Your task to perform on an android device: add a contact Image 0: 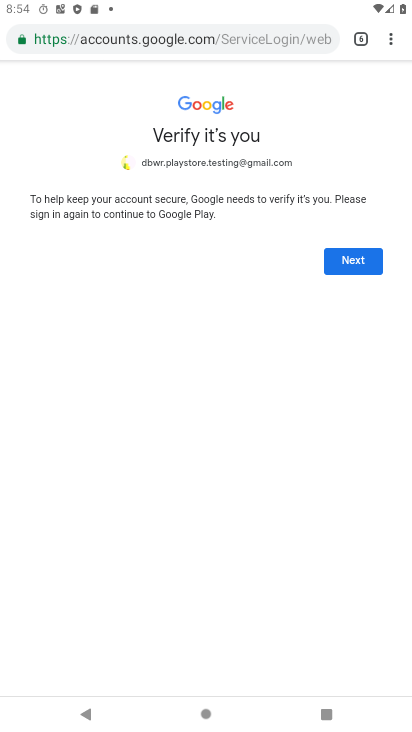
Step 0: press home button
Your task to perform on an android device: add a contact Image 1: 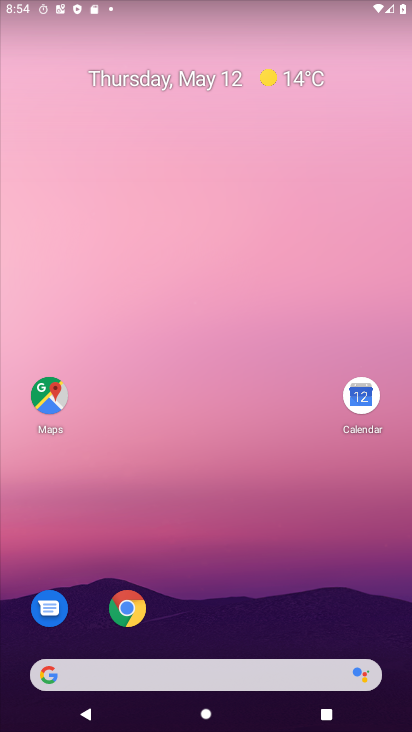
Step 1: drag from (217, 606) to (243, 228)
Your task to perform on an android device: add a contact Image 2: 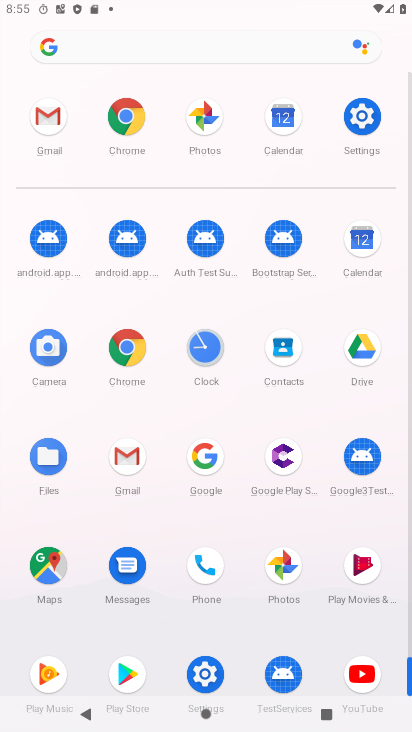
Step 2: click (286, 346)
Your task to perform on an android device: add a contact Image 3: 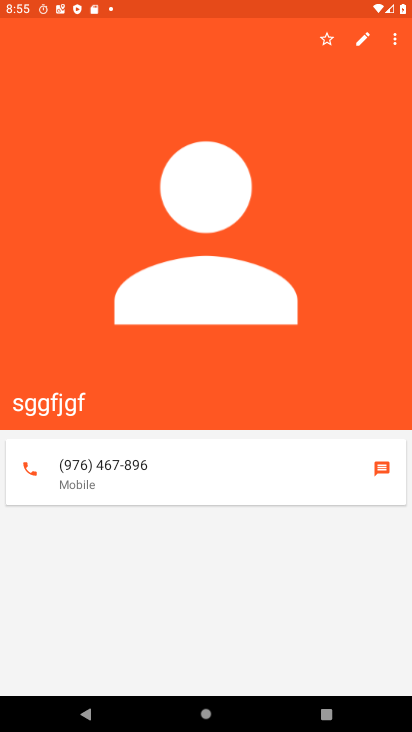
Step 3: press back button
Your task to perform on an android device: add a contact Image 4: 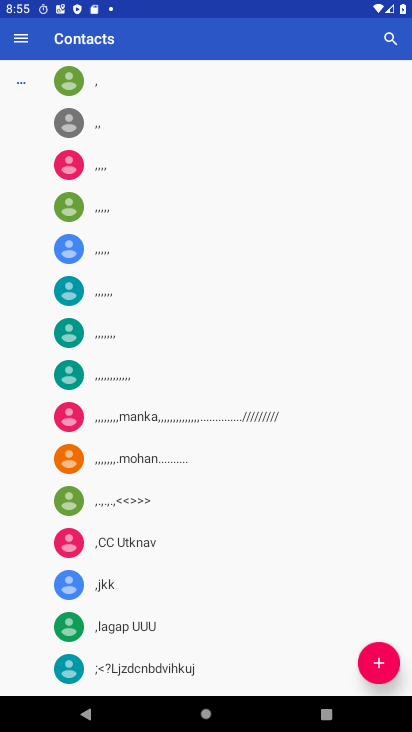
Step 4: click (369, 671)
Your task to perform on an android device: add a contact Image 5: 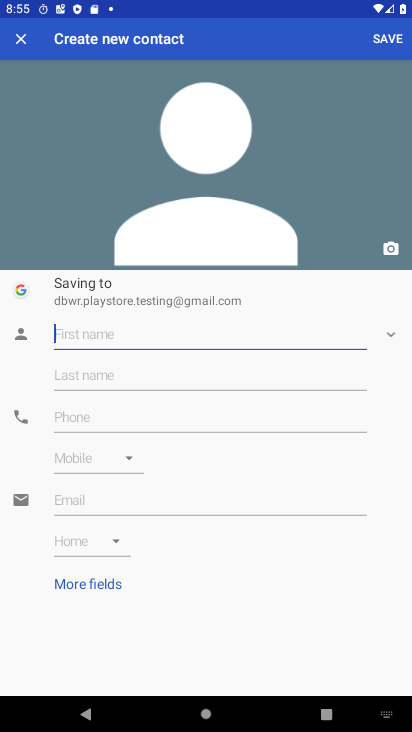
Step 5: click (190, 323)
Your task to perform on an android device: add a contact Image 6: 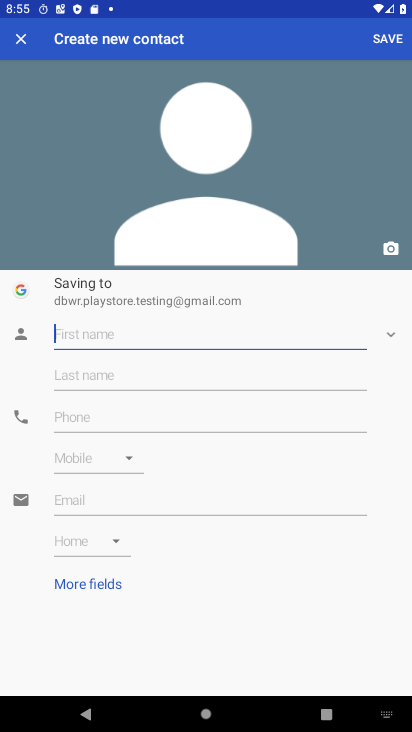
Step 6: type "syfhihkyibgyrfvhgj"
Your task to perform on an android device: add a contact Image 7: 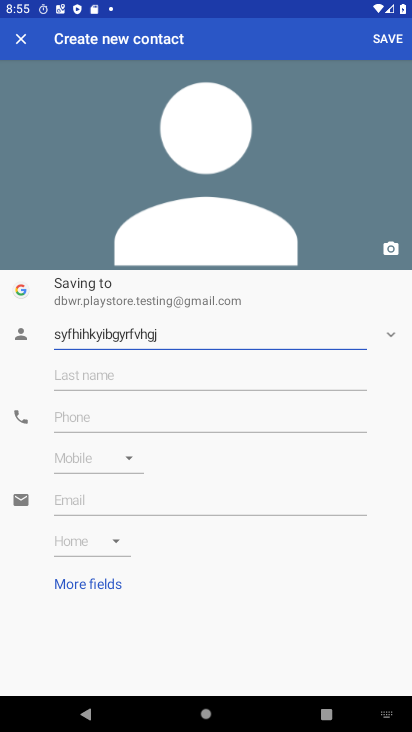
Step 7: click (202, 394)
Your task to perform on an android device: add a contact Image 8: 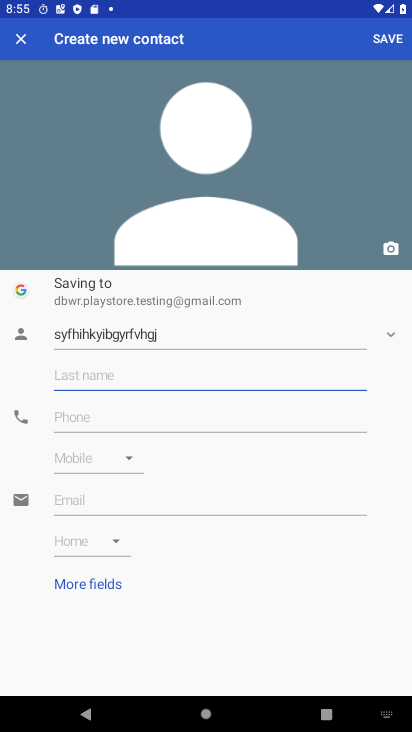
Step 8: click (196, 415)
Your task to perform on an android device: add a contact Image 9: 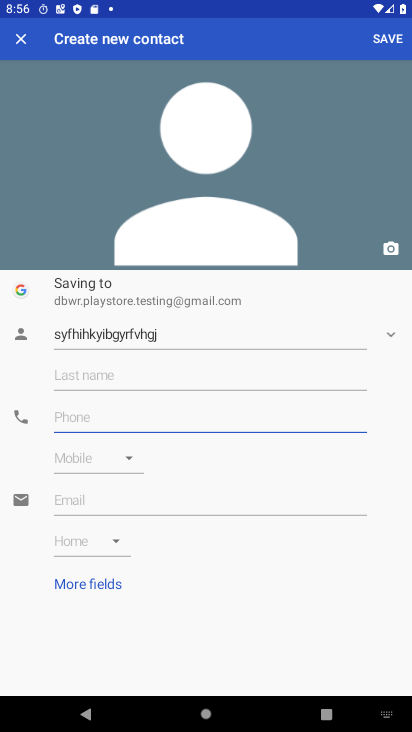
Step 9: type "9087766553"
Your task to perform on an android device: add a contact Image 10: 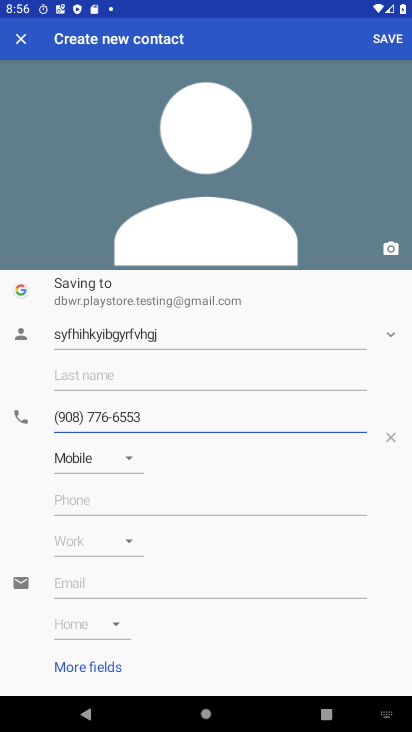
Step 10: click (374, 39)
Your task to perform on an android device: add a contact Image 11: 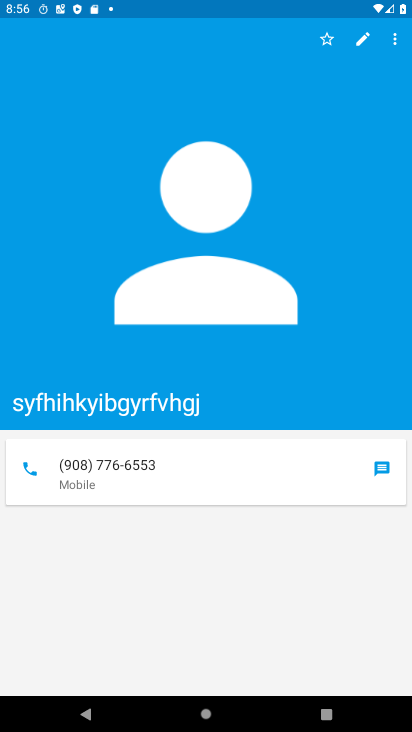
Step 11: task complete